Your task to perform on an android device: Open calendar and show me the third week of next month Image 0: 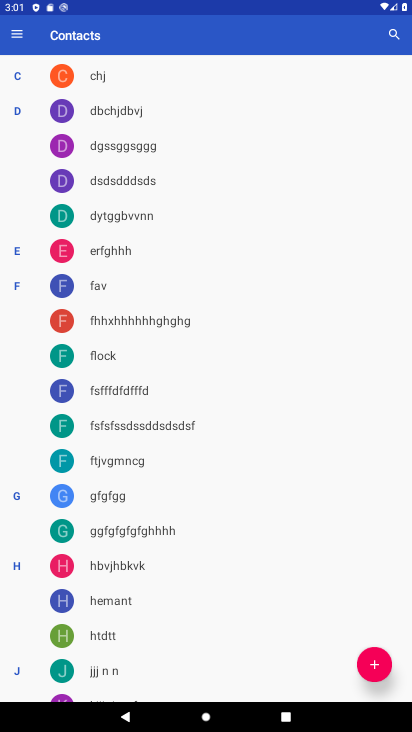
Step 0: press home button
Your task to perform on an android device: Open calendar and show me the third week of next month Image 1: 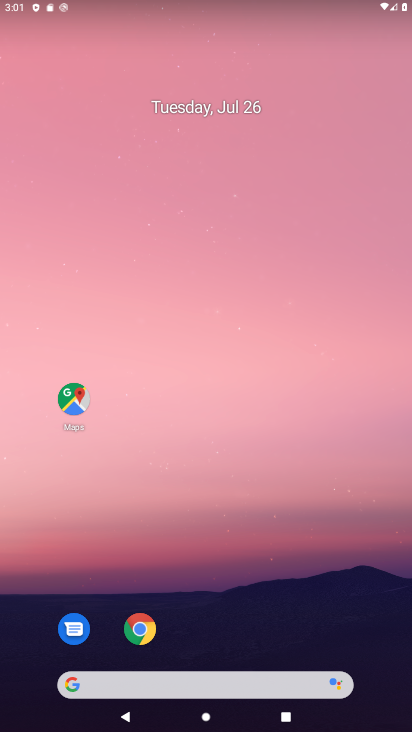
Step 1: press home button
Your task to perform on an android device: Open calendar and show me the third week of next month Image 2: 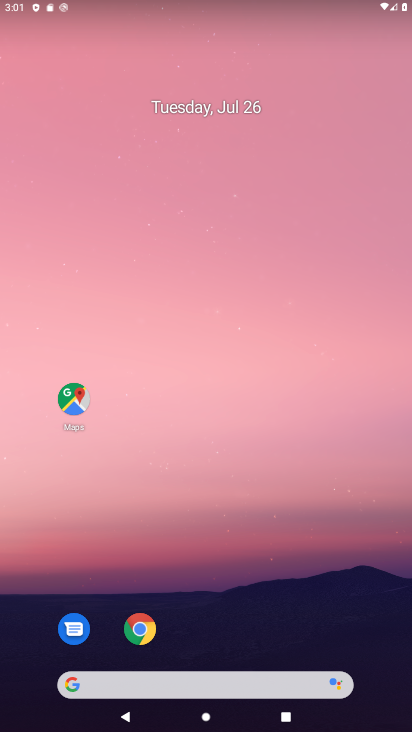
Step 2: drag from (299, 582) to (306, 0)
Your task to perform on an android device: Open calendar and show me the third week of next month Image 3: 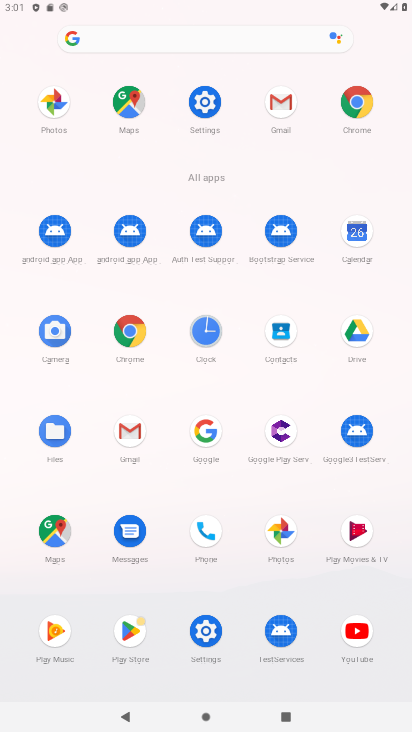
Step 3: click (357, 235)
Your task to perform on an android device: Open calendar and show me the third week of next month Image 4: 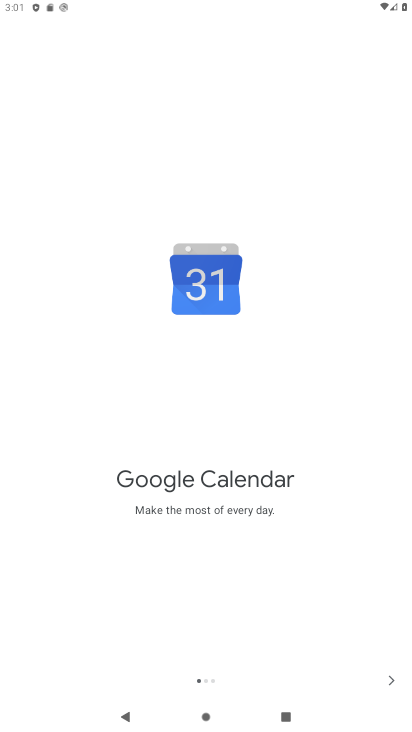
Step 4: click (381, 676)
Your task to perform on an android device: Open calendar and show me the third week of next month Image 5: 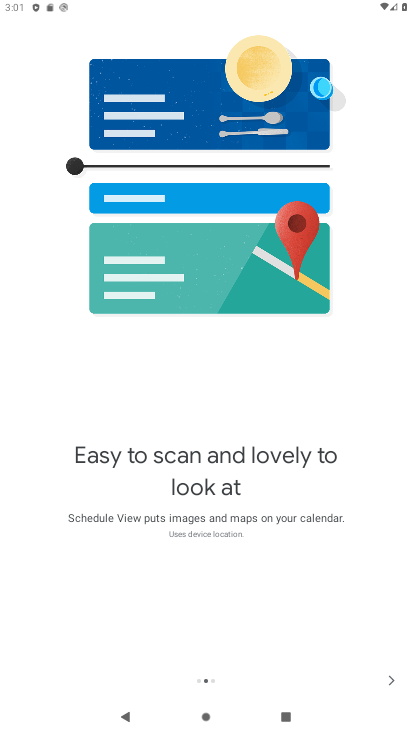
Step 5: click (381, 676)
Your task to perform on an android device: Open calendar and show me the third week of next month Image 6: 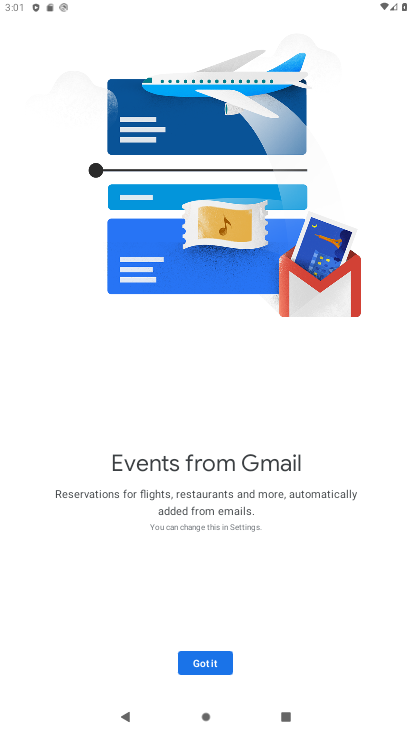
Step 6: click (212, 663)
Your task to perform on an android device: Open calendar and show me the third week of next month Image 7: 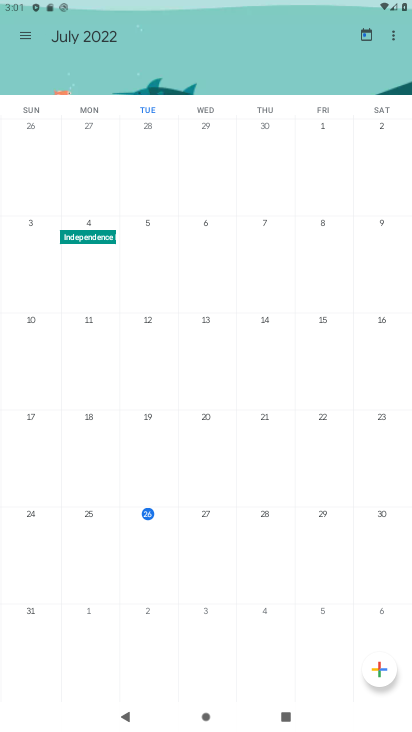
Step 7: drag from (388, 8) to (386, 274)
Your task to perform on an android device: Open calendar and show me the third week of next month Image 8: 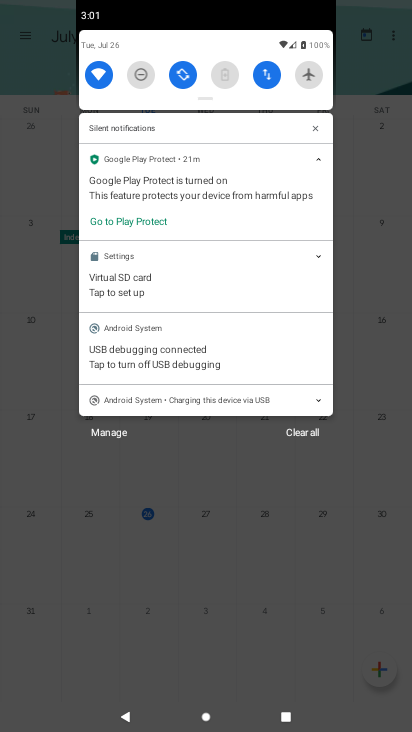
Step 8: click (362, 479)
Your task to perform on an android device: Open calendar and show me the third week of next month Image 9: 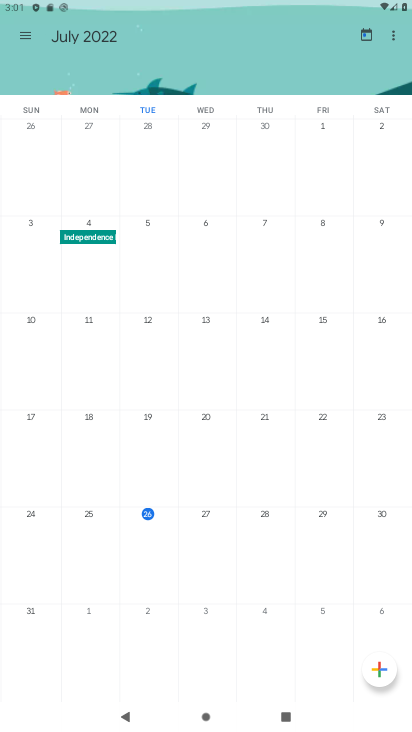
Step 9: drag from (287, 426) to (25, 448)
Your task to perform on an android device: Open calendar and show me the third week of next month Image 10: 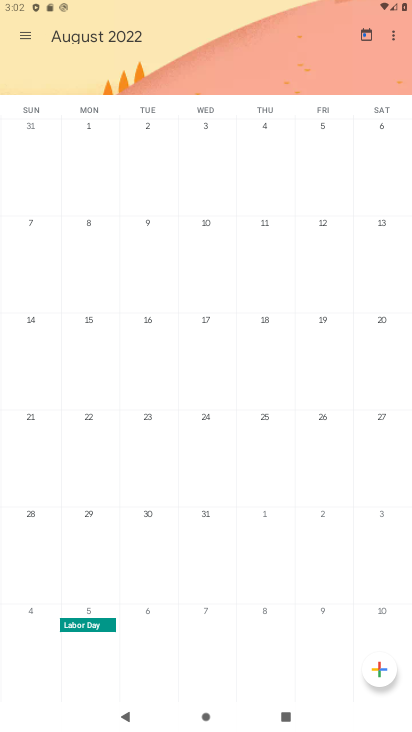
Step 10: click (100, 374)
Your task to perform on an android device: Open calendar and show me the third week of next month Image 11: 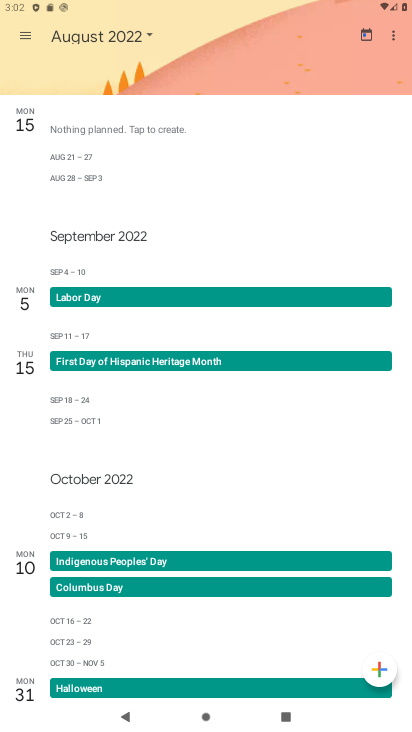
Step 11: task complete